Your task to perform on an android device: toggle sleep mode Image 0: 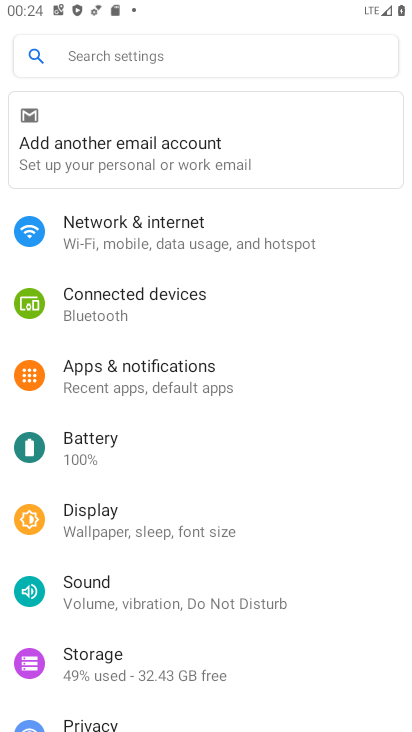
Step 0: click (175, 536)
Your task to perform on an android device: toggle sleep mode Image 1: 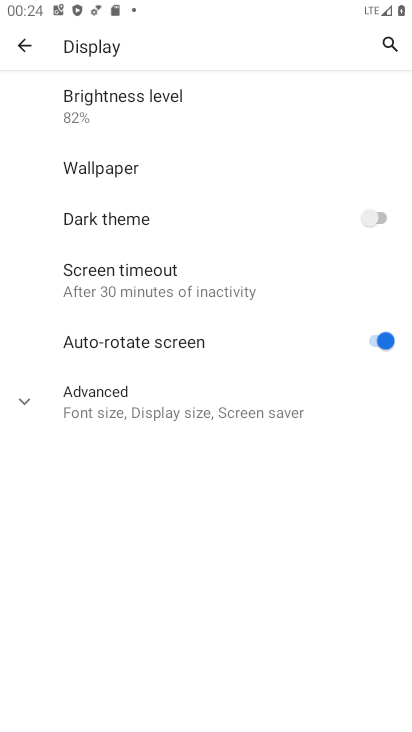
Step 1: click (161, 275)
Your task to perform on an android device: toggle sleep mode Image 2: 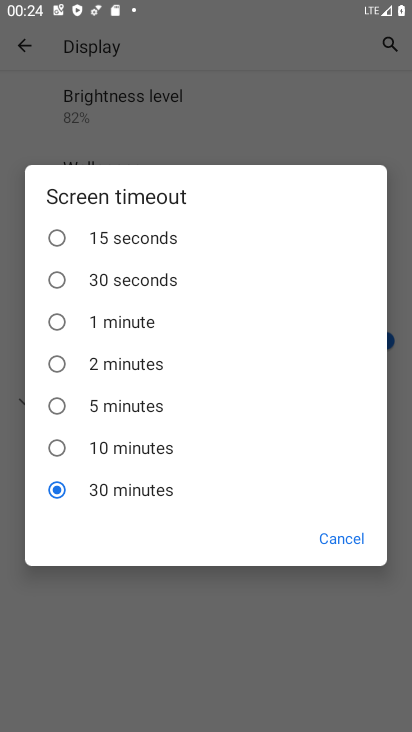
Step 2: click (155, 287)
Your task to perform on an android device: toggle sleep mode Image 3: 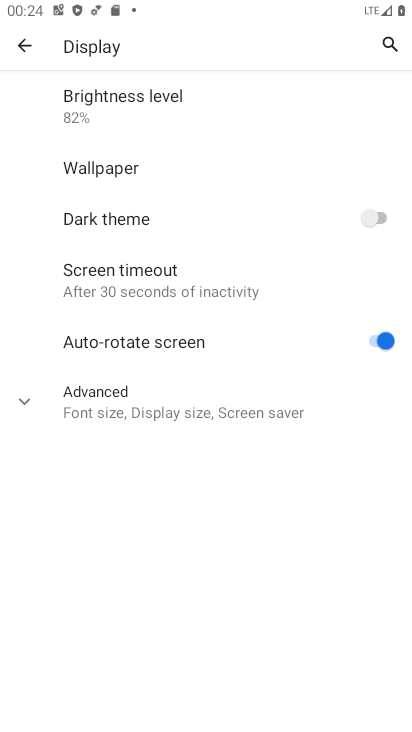
Step 3: task complete